Your task to perform on an android device: turn on data saver in the chrome app Image 0: 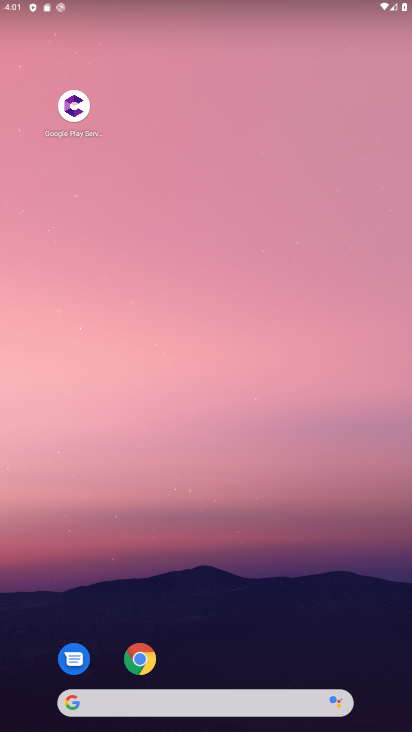
Step 0: drag from (249, 679) to (335, 169)
Your task to perform on an android device: turn on data saver in the chrome app Image 1: 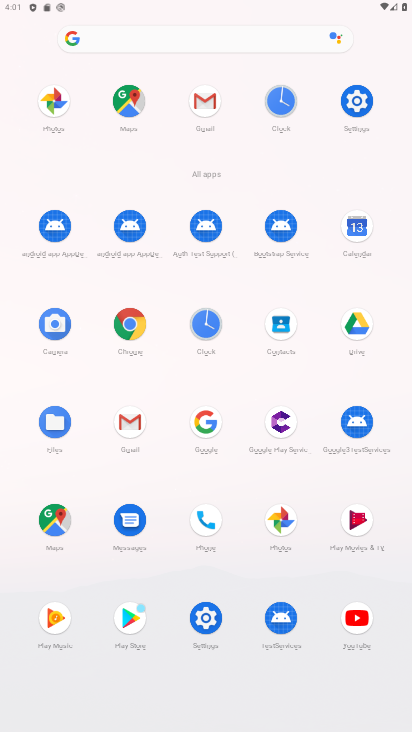
Step 1: click (138, 341)
Your task to perform on an android device: turn on data saver in the chrome app Image 2: 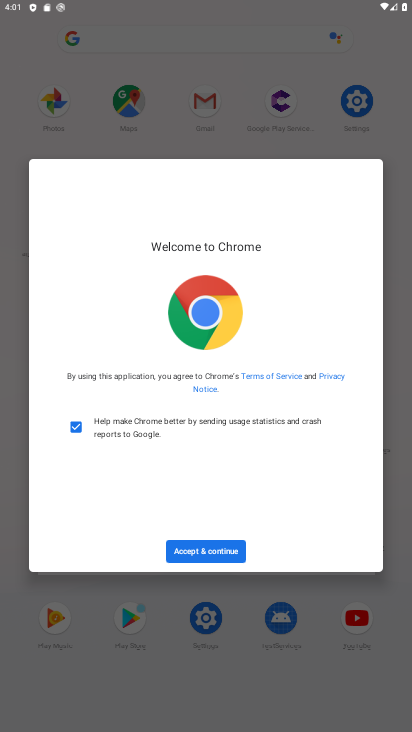
Step 2: click (199, 540)
Your task to perform on an android device: turn on data saver in the chrome app Image 3: 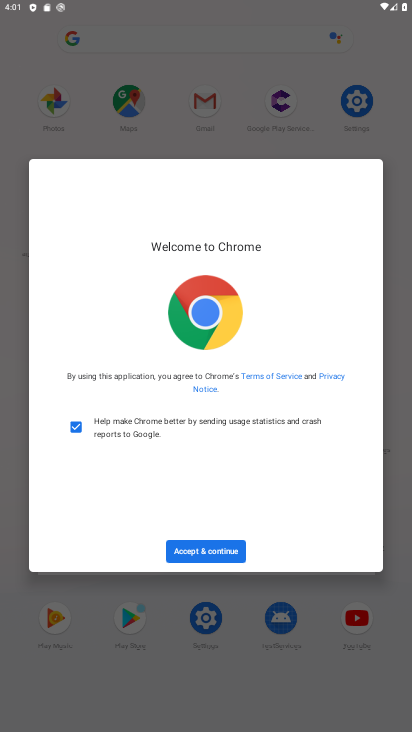
Step 3: click (205, 545)
Your task to perform on an android device: turn on data saver in the chrome app Image 4: 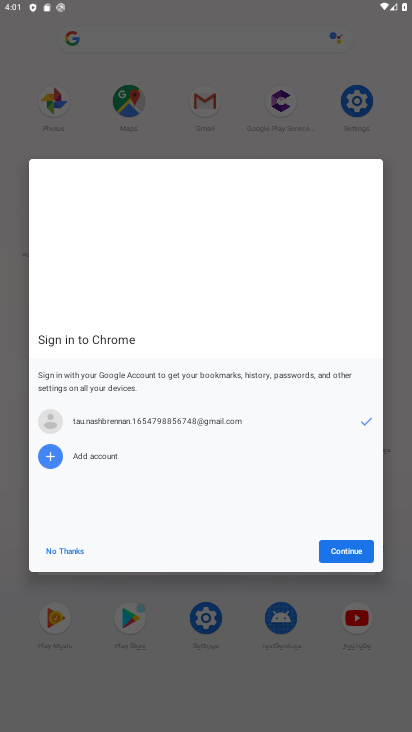
Step 4: click (367, 557)
Your task to perform on an android device: turn on data saver in the chrome app Image 5: 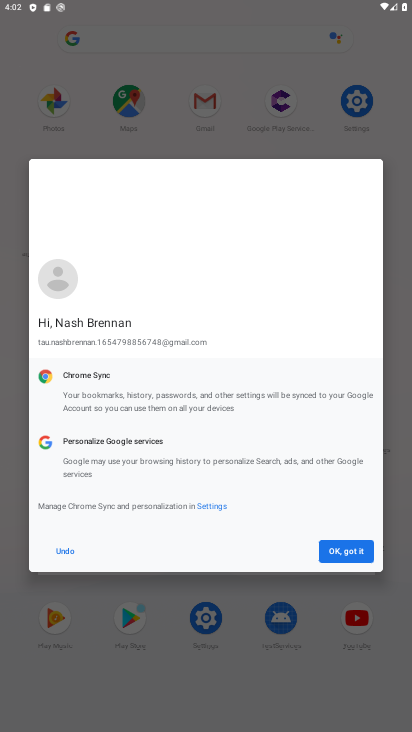
Step 5: click (367, 557)
Your task to perform on an android device: turn on data saver in the chrome app Image 6: 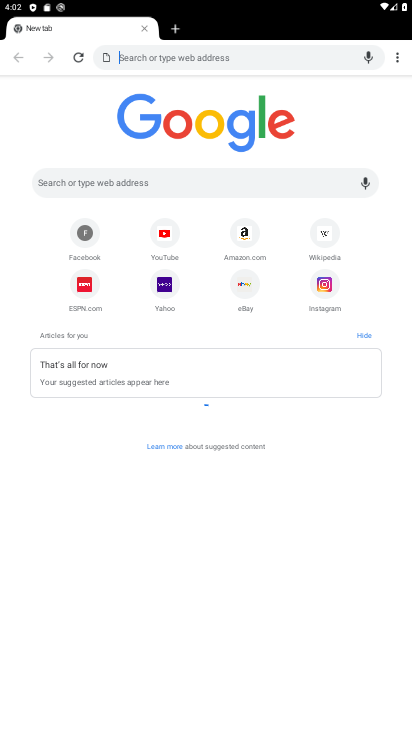
Step 6: drag from (399, 62) to (321, 255)
Your task to perform on an android device: turn on data saver in the chrome app Image 7: 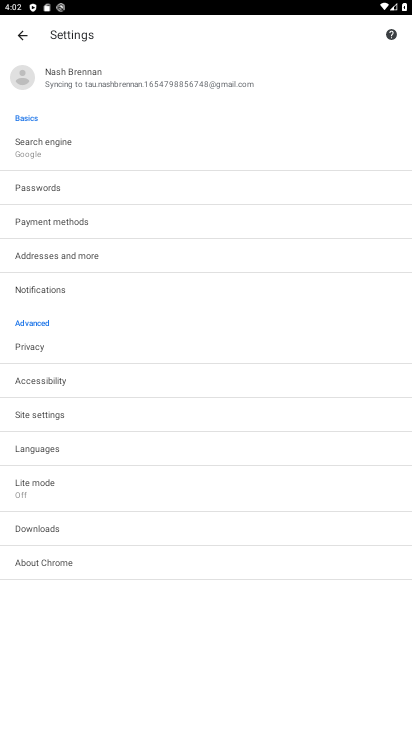
Step 7: click (80, 479)
Your task to perform on an android device: turn on data saver in the chrome app Image 8: 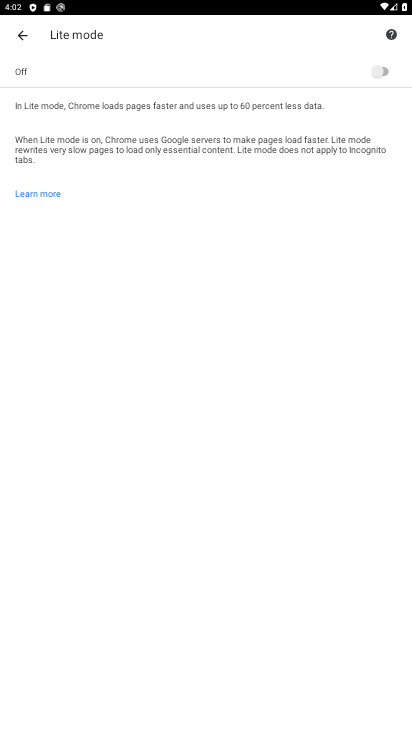
Step 8: click (399, 68)
Your task to perform on an android device: turn on data saver in the chrome app Image 9: 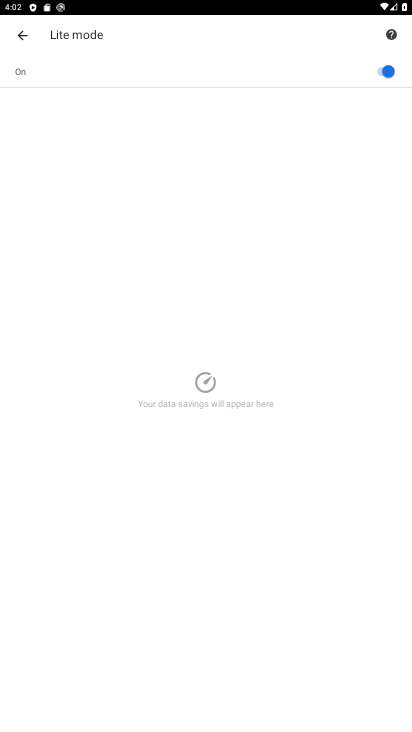
Step 9: task complete